Your task to perform on an android device: read, delete, or share a saved page in the chrome app Image 0: 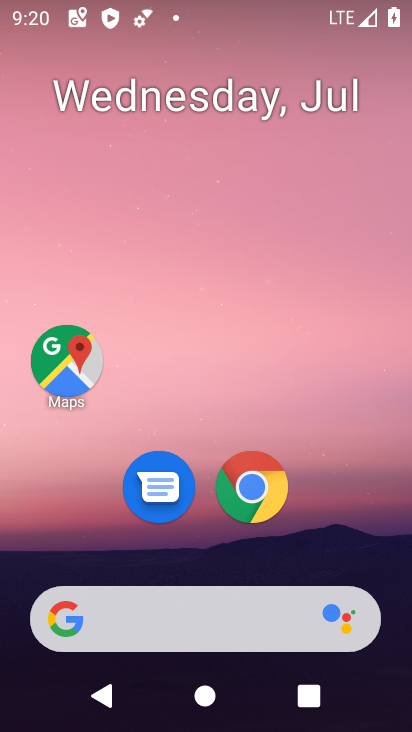
Step 0: drag from (161, 577) to (101, 110)
Your task to perform on an android device: read, delete, or share a saved page in the chrome app Image 1: 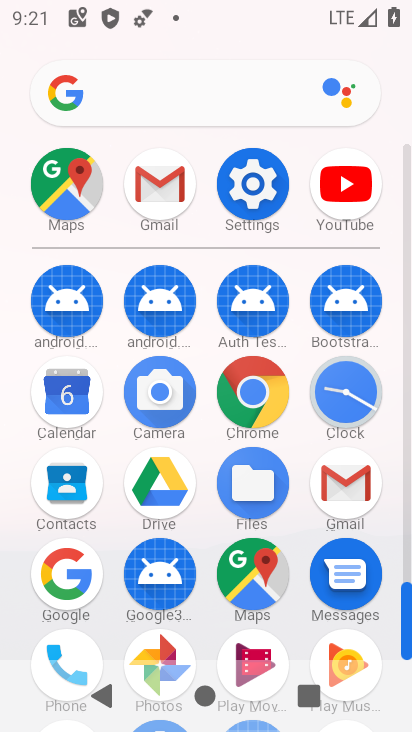
Step 1: click (253, 404)
Your task to perform on an android device: read, delete, or share a saved page in the chrome app Image 2: 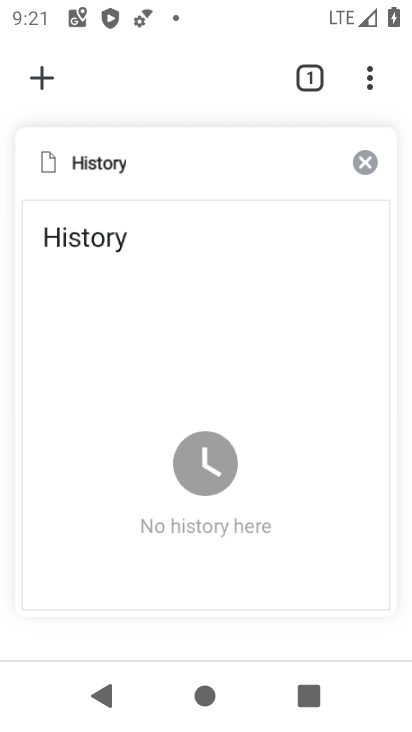
Step 2: press home button
Your task to perform on an android device: read, delete, or share a saved page in the chrome app Image 3: 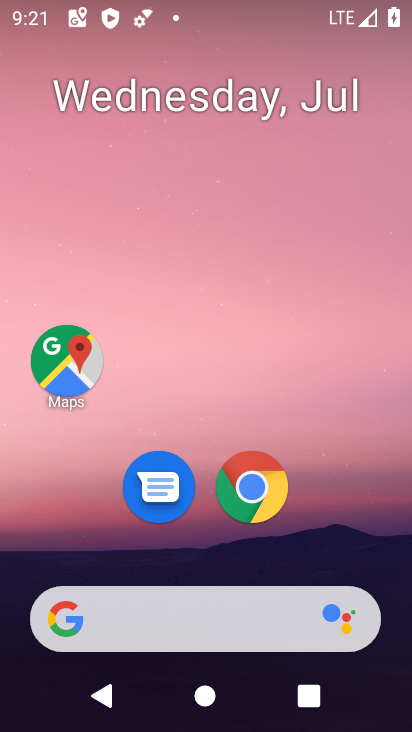
Step 3: click (262, 521)
Your task to perform on an android device: read, delete, or share a saved page in the chrome app Image 4: 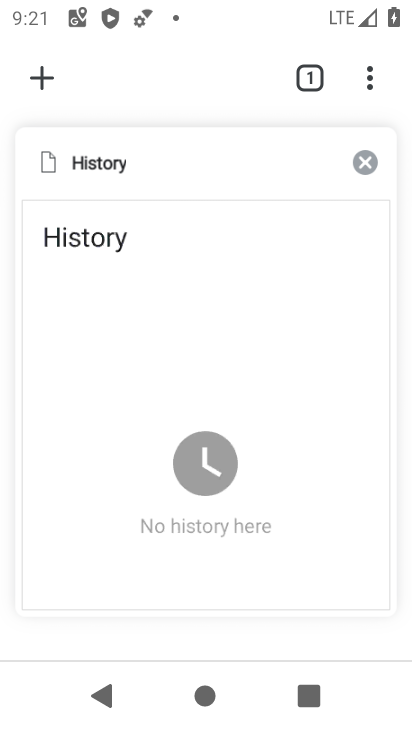
Step 4: click (368, 85)
Your task to perform on an android device: read, delete, or share a saved page in the chrome app Image 5: 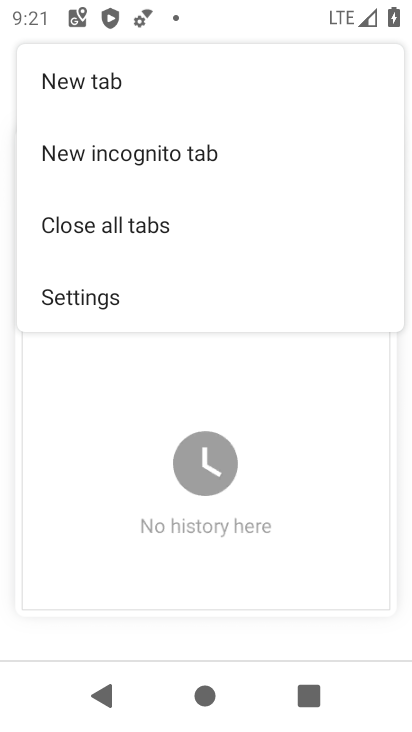
Step 5: click (102, 307)
Your task to perform on an android device: read, delete, or share a saved page in the chrome app Image 6: 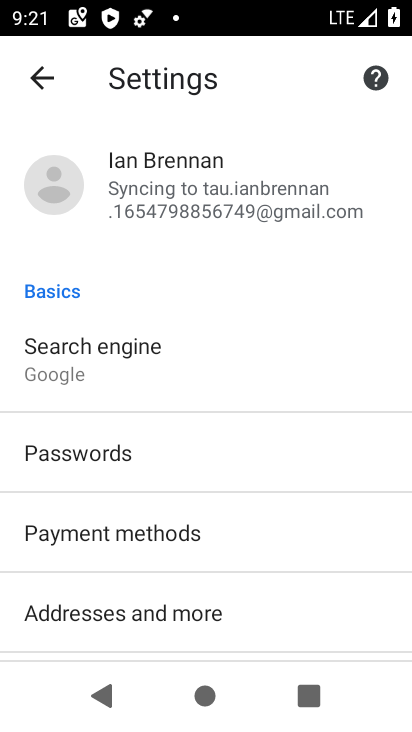
Step 6: drag from (91, 486) to (63, 171)
Your task to perform on an android device: read, delete, or share a saved page in the chrome app Image 7: 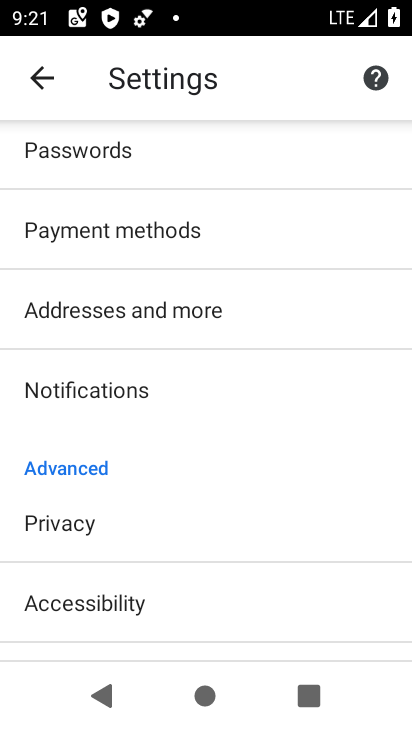
Step 7: drag from (118, 517) to (94, 158)
Your task to perform on an android device: read, delete, or share a saved page in the chrome app Image 8: 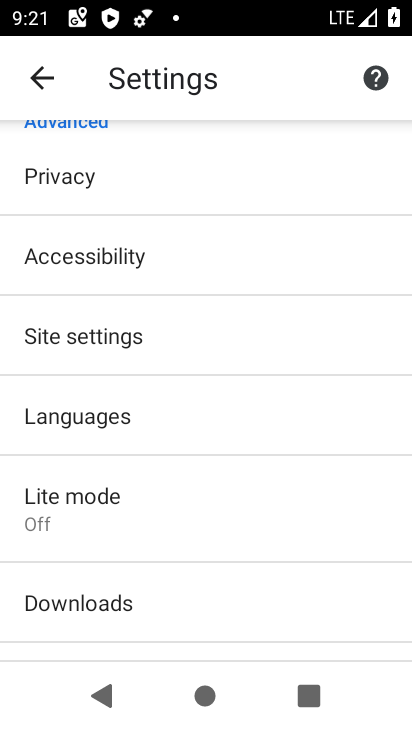
Step 8: click (110, 588)
Your task to perform on an android device: read, delete, or share a saved page in the chrome app Image 9: 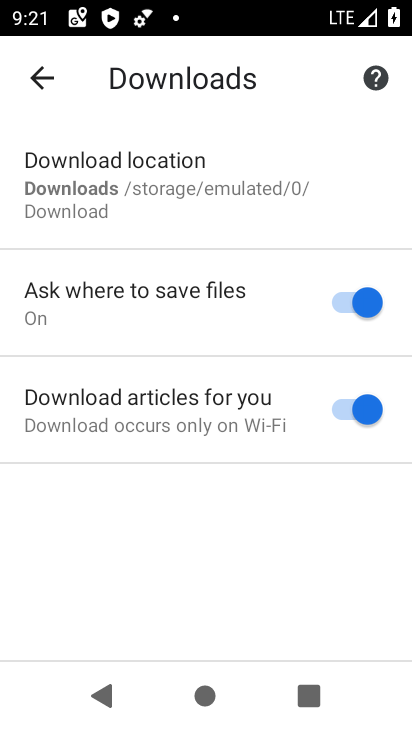
Step 9: task complete